Your task to perform on an android device: turn on location history Image 0: 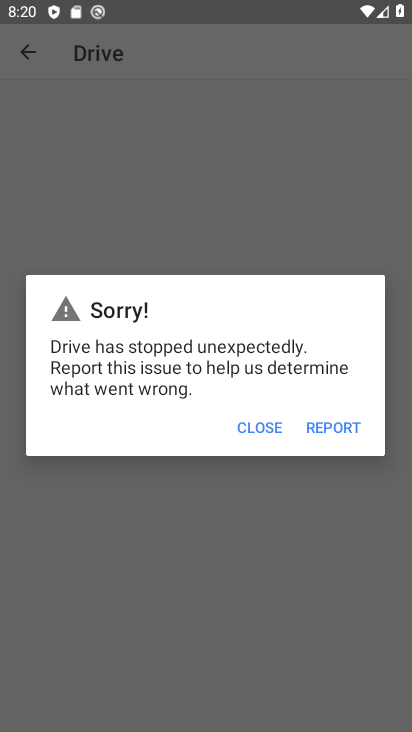
Step 0: press home button
Your task to perform on an android device: turn on location history Image 1: 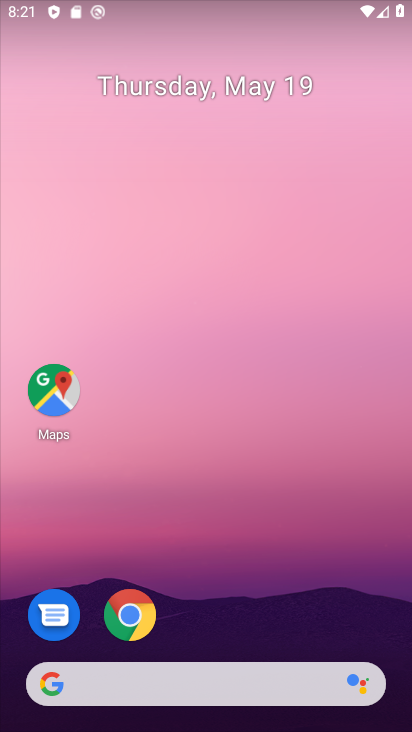
Step 1: click (133, 617)
Your task to perform on an android device: turn on location history Image 2: 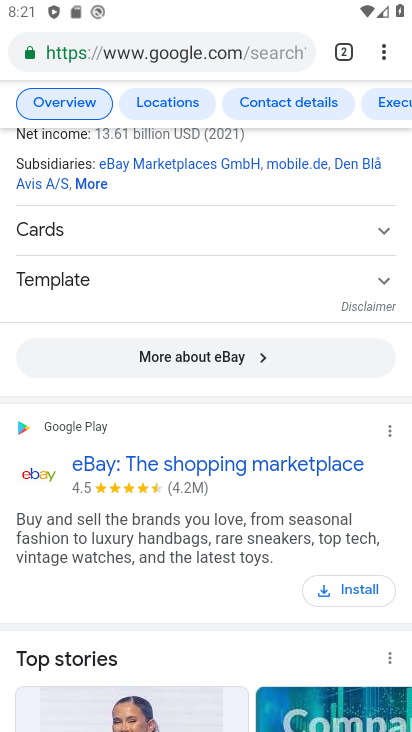
Step 2: press home button
Your task to perform on an android device: turn on location history Image 3: 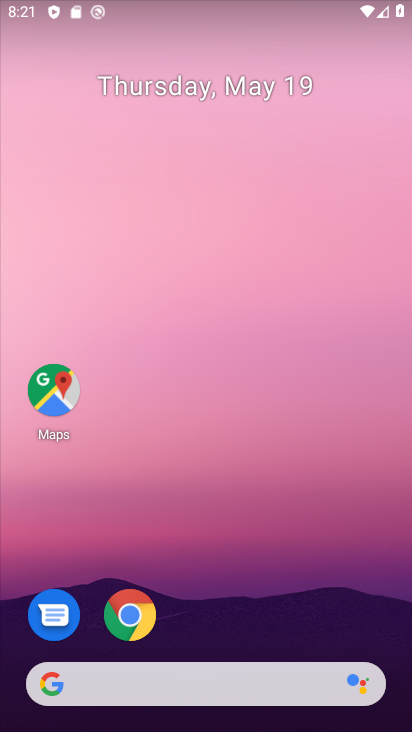
Step 3: drag from (333, 609) to (281, 13)
Your task to perform on an android device: turn on location history Image 4: 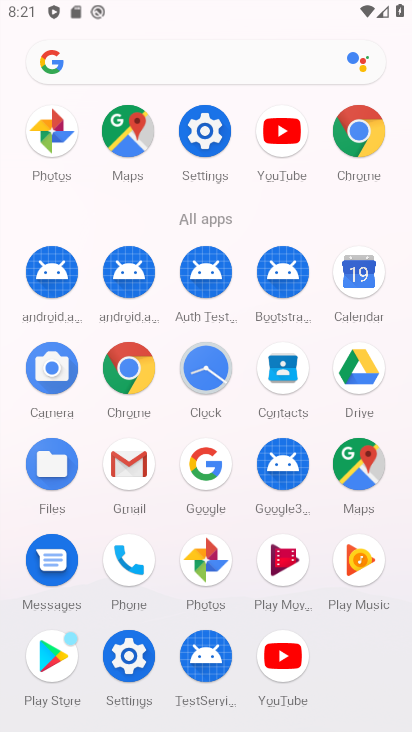
Step 4: click (192, 129)
Your task to perform on an android device: turn on location history Image 5: 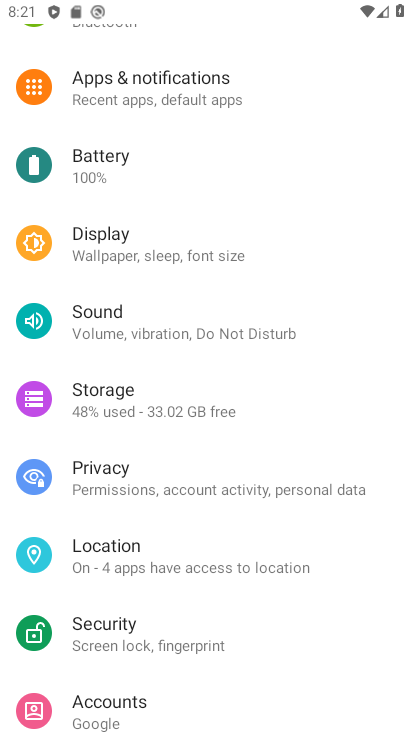
Step 5: click (201, 550)
Your task to perform on an android device: turn on location history Image 6: 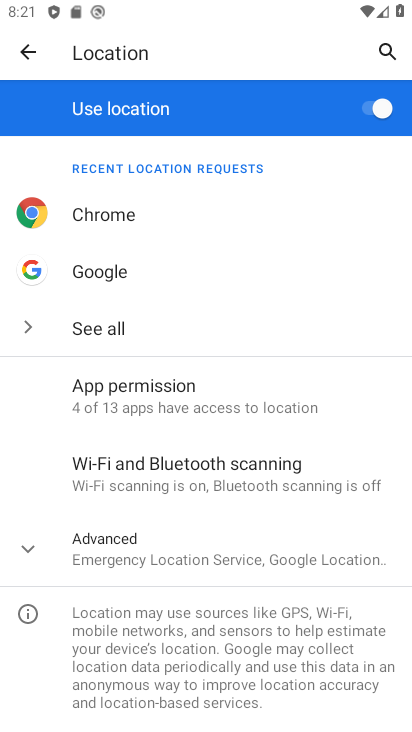
Step 6: click (232, 560)
Your task to perform on an android device: turn on location history Image 7: 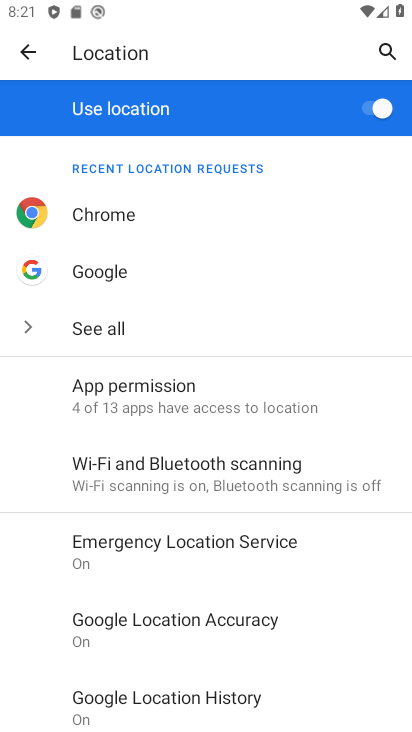
Step 7: click (253, 701)
Your task to perform on an android device: turn on location history Image 8: 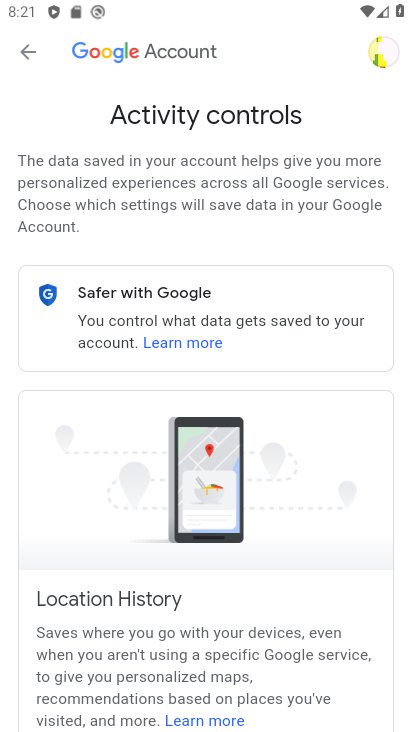
Step 8: drag from (229, 567) to (159, 2)
Your task to perform on an android device: turn on location history Image 9: 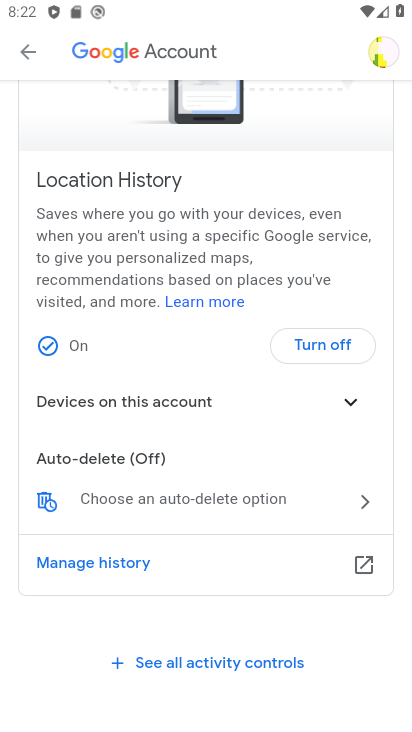
Step 9: click (320, 343)
Your task to perform on an android device: turn on location history Image 10: 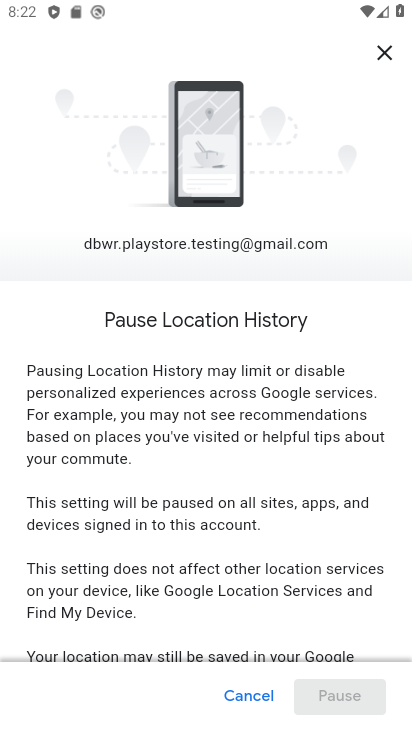
Step 10: task complete